Your task to perform on an android device: turn on location history Image 0: 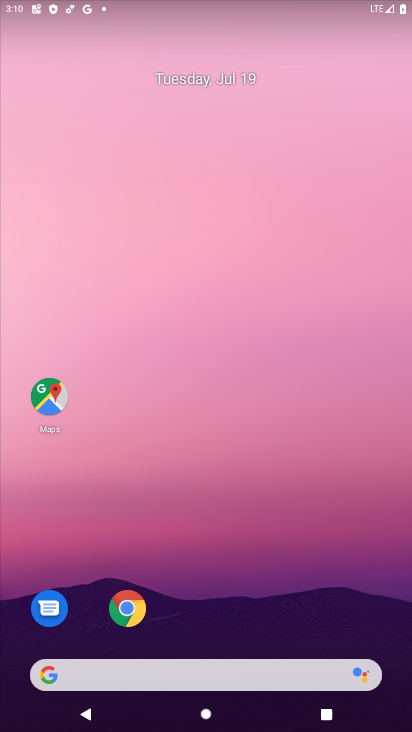
Step 0: drag from (262, 574) to (261, 125)
Your task to perform on an android device: turn on location history Image 1: 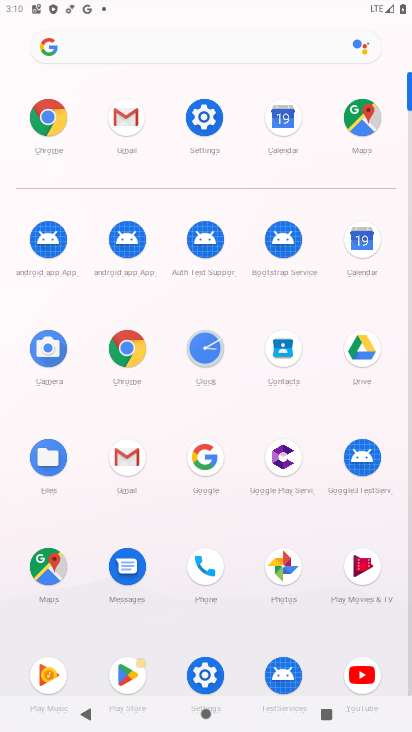
Step 1: click (204, 115)
Your task to perform on an android device: turn on location history Image 2: 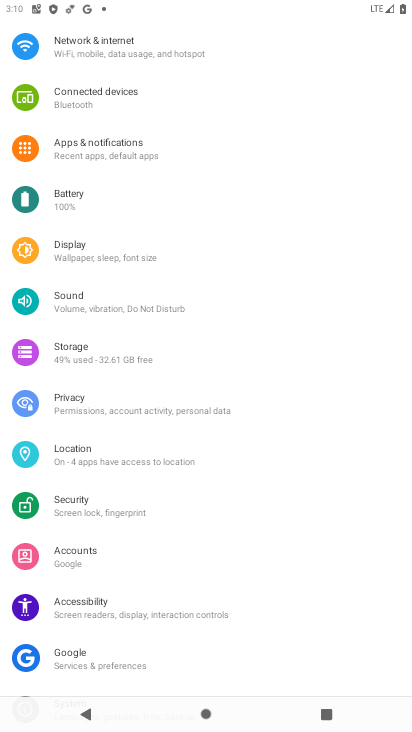
Step 2: click (77, 466)
Your task to perform on an android device: turn on location history Image 3: 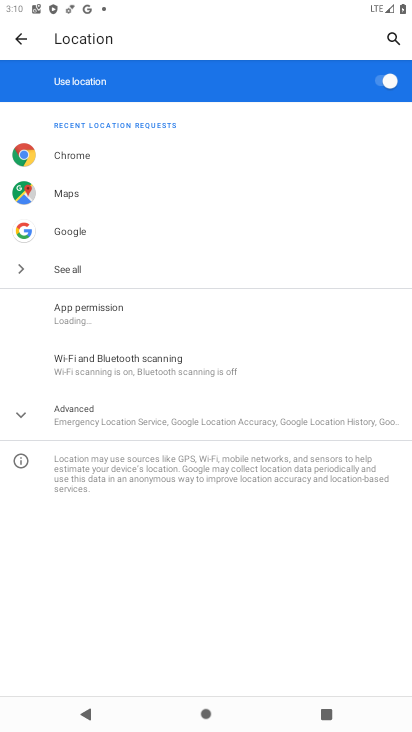
Step 3: click (78, 412)
Your task to perform on an android device: turn on location history Image 4: 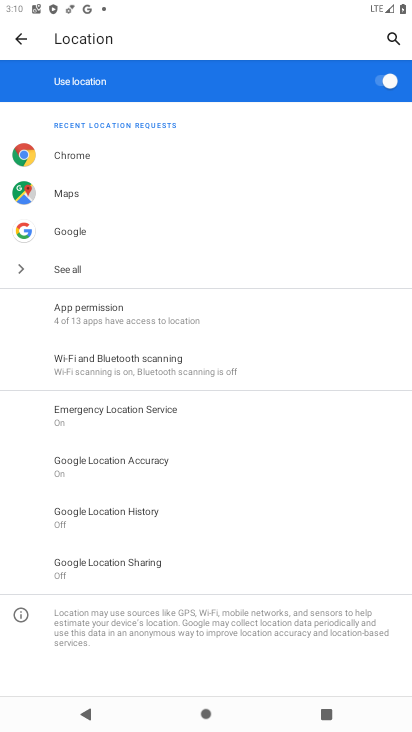
Step 4: click (155, 513)
Your task to perform on an android device: turn on location history Image 5: 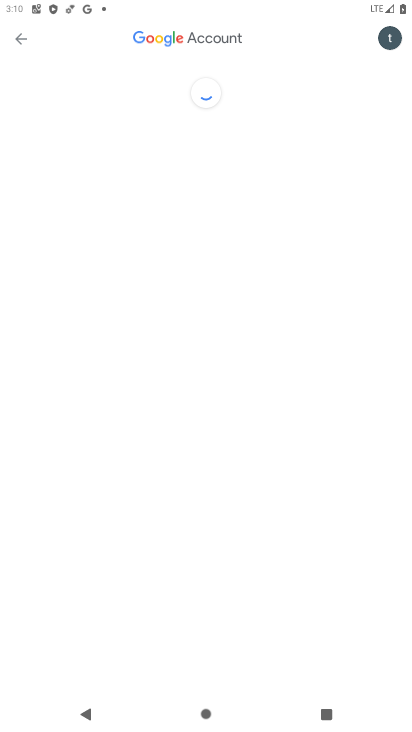
Step 5: click (363, 414)
Your task to perform on an android device: turn on location history Image 6: 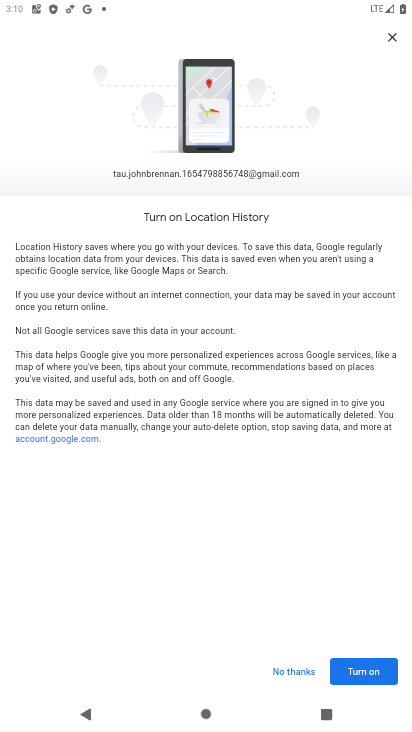
Step 6: click (371, 669)
Your task to perform on an android device: turn on location history Image 7: 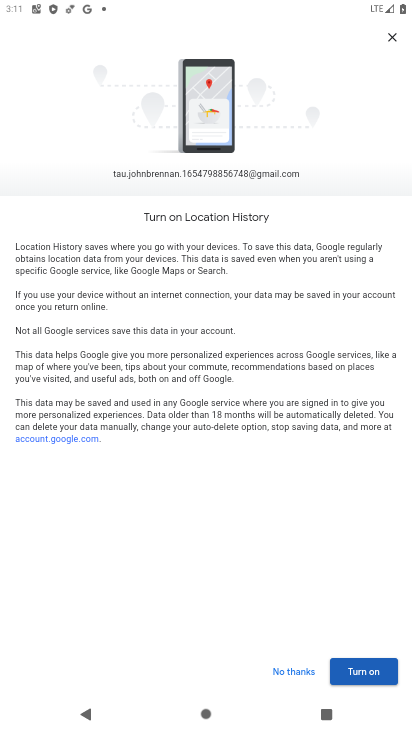
Step 7: click (366, 661)
Your task to perform on an android device: turn on location history Image 8: 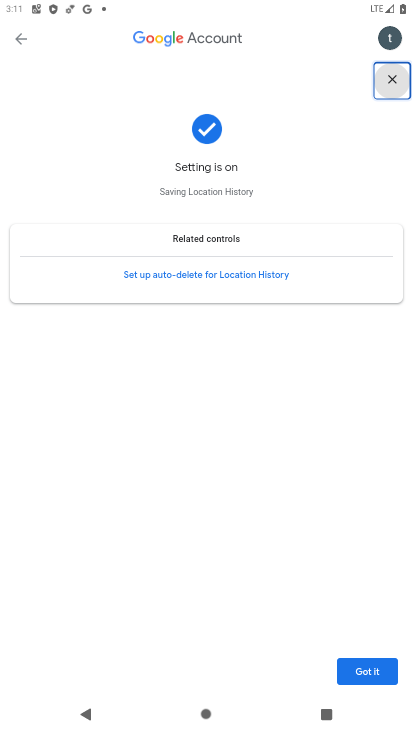
Step 8: task complete